Your task to perform on an android device: Open settings on Google Maps Image 0: 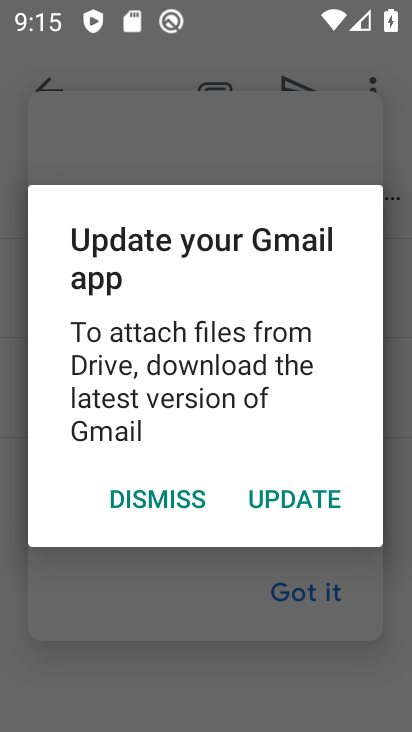
Step 0: press home button
Your task to perform on an android device: Open settings on Google Maps Image 1: 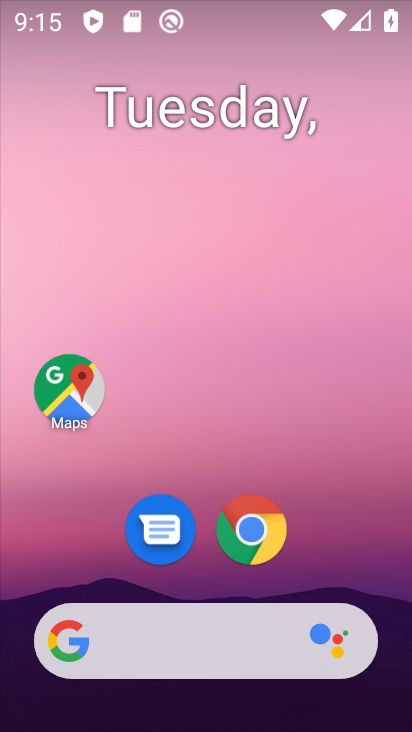
Step 1: click (84, 405)
Your task to perform on an android device: Open settings on Google Maps Image 2: 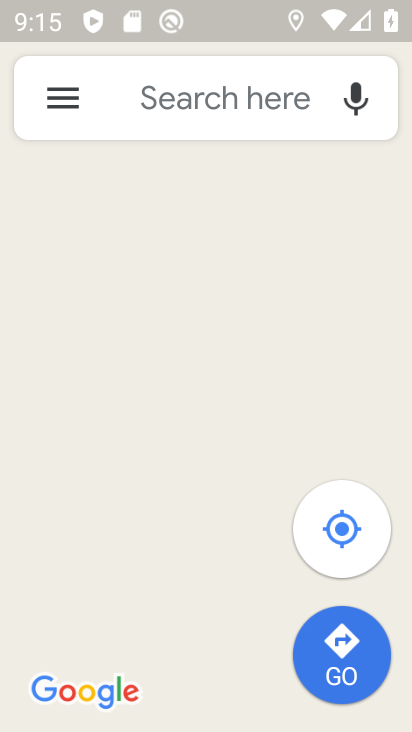
Step 2: click (60, 98)
Your task to perform on an android device: Open settings on Google Maps Image 3: 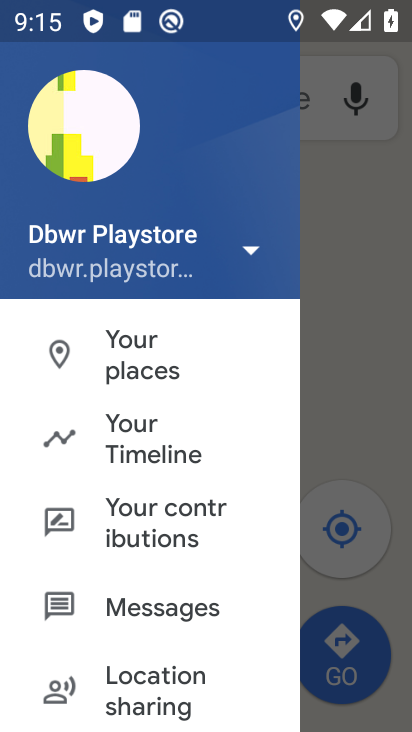
Step 3: drag from (168, 704) to (210, 379)
Your task to perform on an android device: Open settings on Google Maps Image 4: 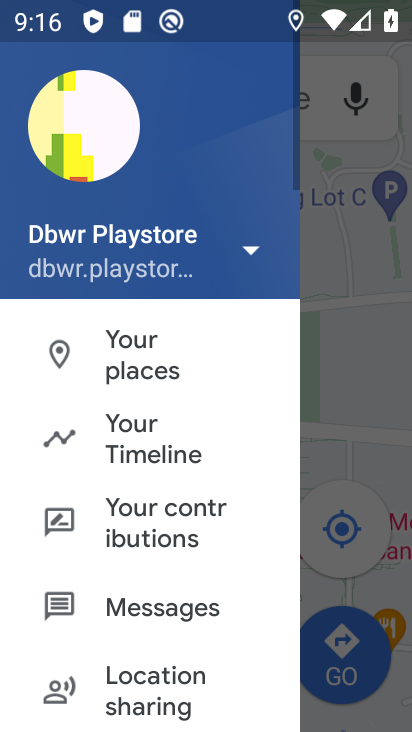
Step 4: drag from (209, 509) to (224, 328)
Your task to perform on an android device: Open settings on Google Maps Image 5: 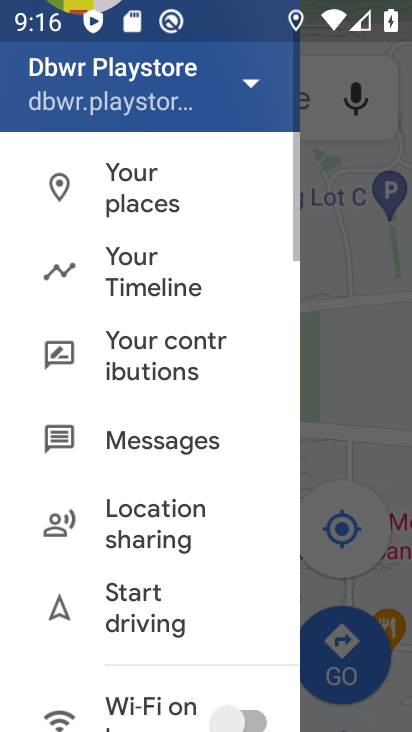
Step 5: drag from (198, 651) to (271, 313)
Your task to perform on an android device: Open settings on Google Maps Image 6: 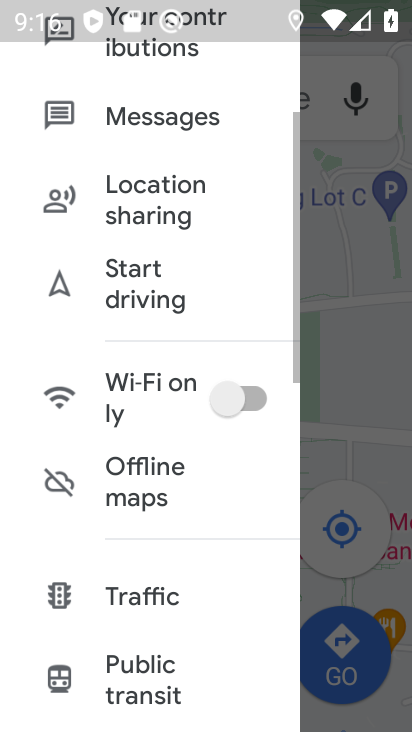
Step 6: drag from (215, 649) to (217, 390)
Your task to perform on an android device: Open settings on Google Maps Image 7: 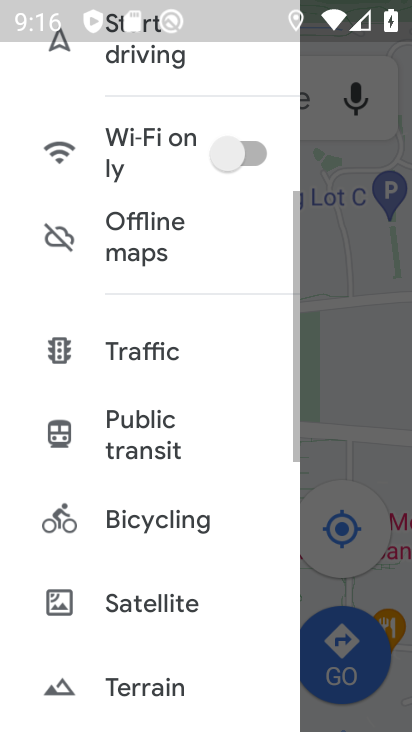
Step 7: drag from (187, 683) to (207, 316)
Your task to perform on an android device: Open settings on Google Maps Image 8: 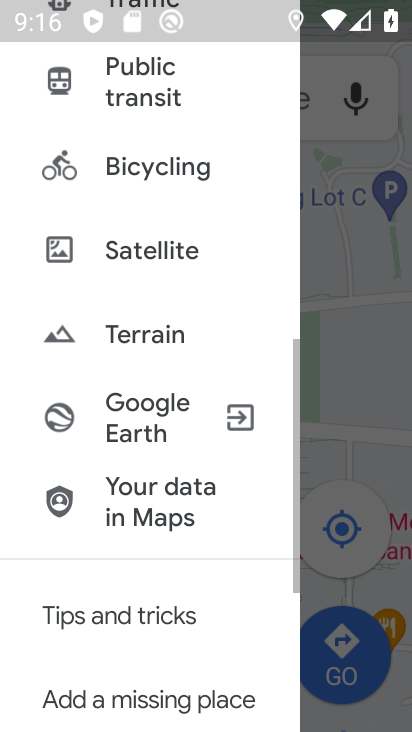
Step 8: drag from (175, 650) to (197, 274)
Your task to perform on an android device: Open settings on Google Maps Image 9: 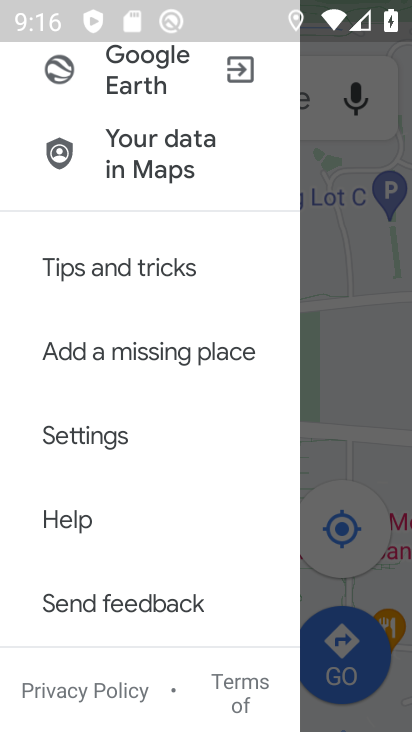
Step 9: click (108, 441)
Your task to perform on an android device: Open settings on Google Maps Image 10: 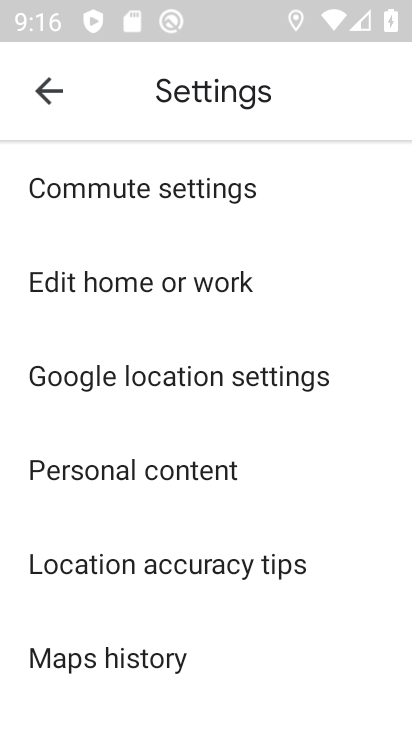
Step 10: task complete